Your task to perform on an android device: Open Chrome and go to settings Image 0: 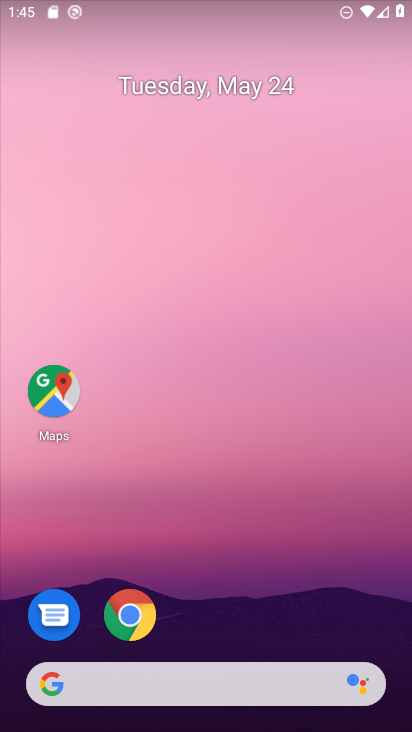
Step 0: click (133, 603)
Your task to perform on an android device: Open Chrome and go to settings Image 1: 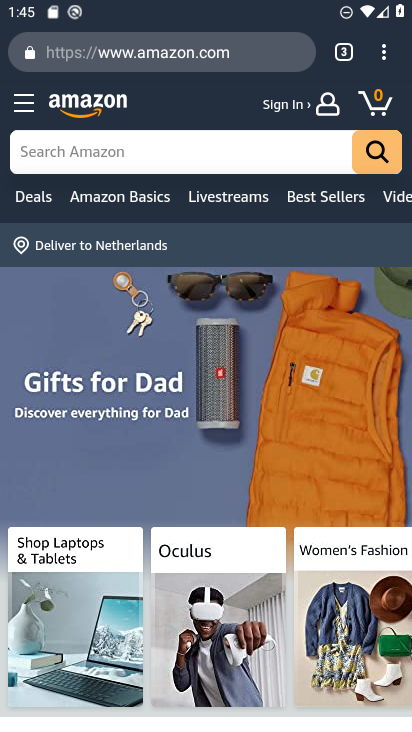
Step 1: task complete